Your task to perform on an android device: Open the phone app and click the voicemail tab. Image 0: 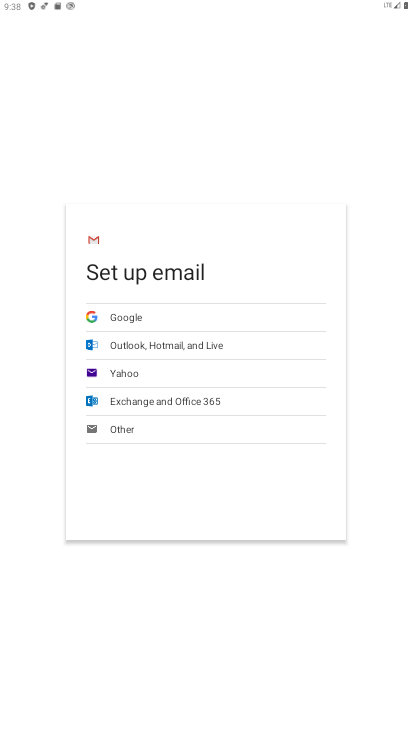
Step 0: press home button
Your task to perform on an android device: Open the phone app and click the voicemail tab. Image 1: 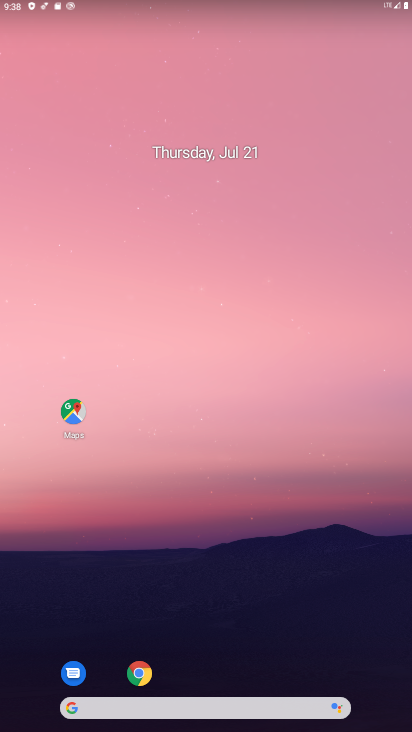
Step 1: drag from (212, 720) to (210, 29)
Your task to perform on an android device: Open the phone app and click the voicemail tab. Image 2: 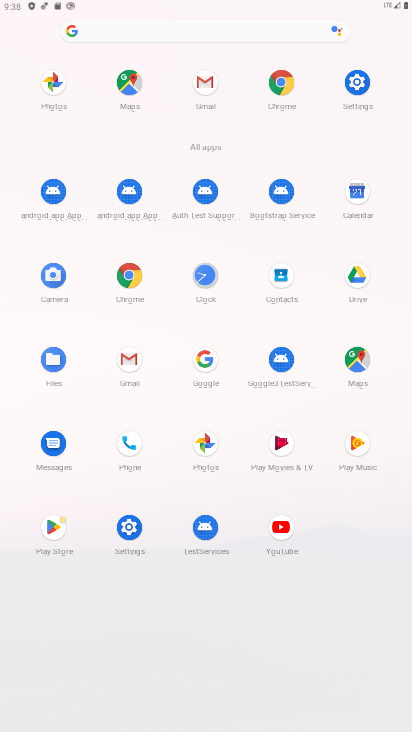
Step 2: click (129, 450)
Your task to perform on an android device: Open the phone app and click the voicemail tab. Image 3: 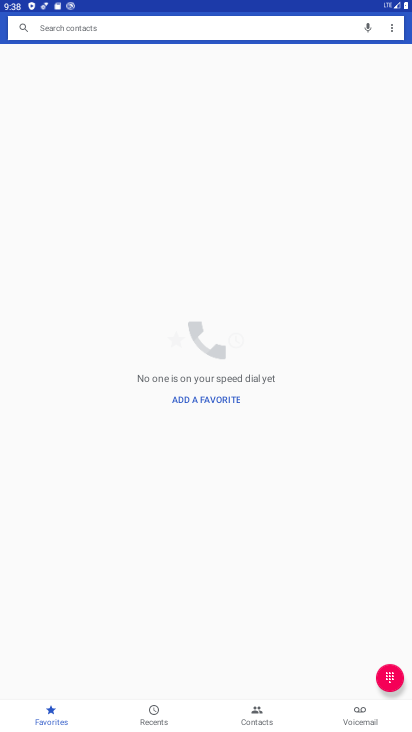
Step 3: click (357, 708)
Your task to perform on an android device: Open the phone app and click the voicemail tab. Image 4: 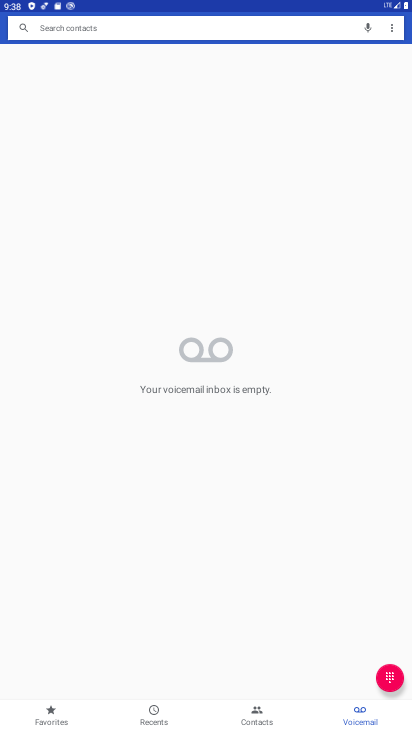
Step 4: task complete